Your task to perform on an android device: toggle data saver in the chrome app Image 0: 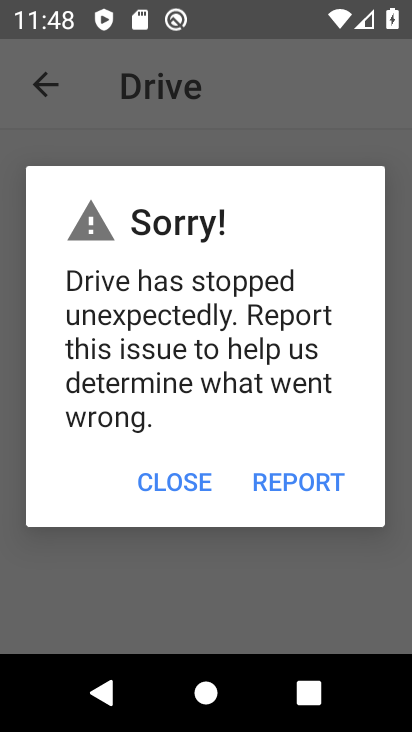
Step 0: press home button
Your task to perform on an android device: toggle data saver in the chrome app Image 1: 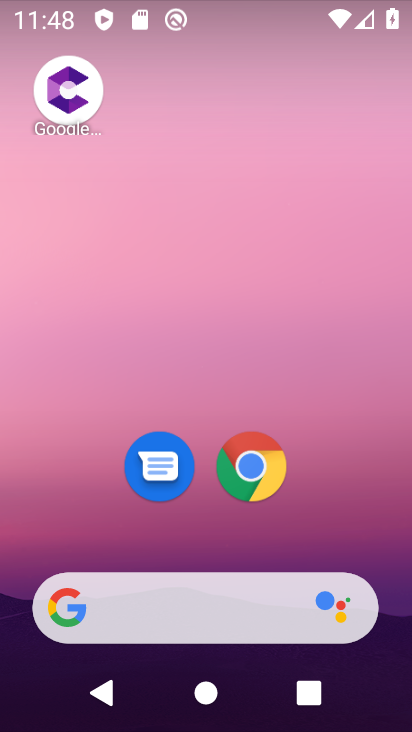
Step 1: click (266, 461)
Your task to perform on an android device: toggle data saver in the chrome app Image 2: 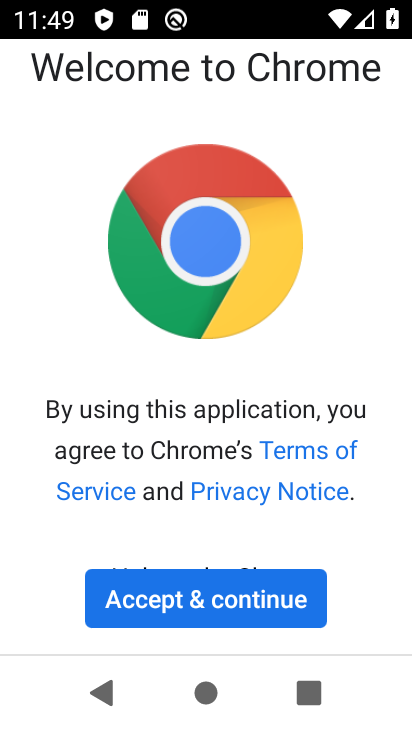
Step 2: click (229, 608)
Your task to perform on an android device: toggle data saver in the chrome app Image 3: 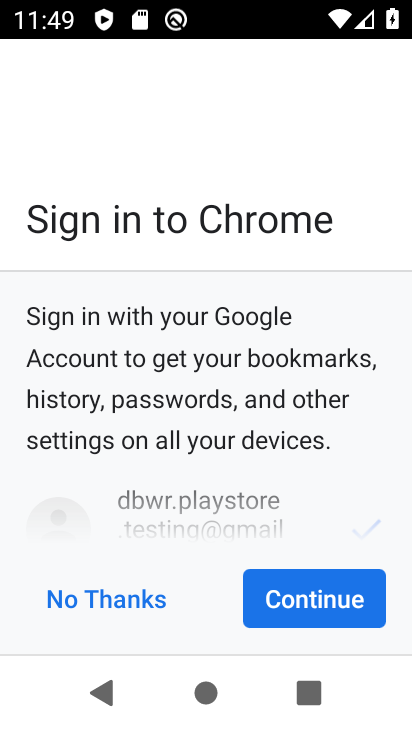
Step 3: click (285, 601)
Your task to perform on an android device: toggle data saver in the chrome app Image 4: 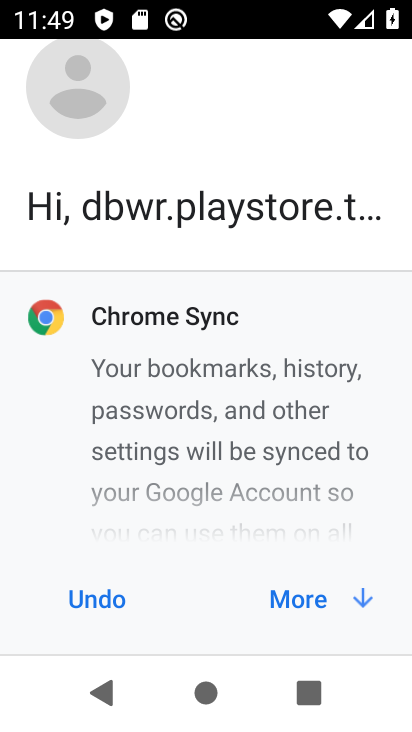
Step 4: click (285, 601)
Your task to perform on an android device: toggle data saver in the chrome app Image 5: 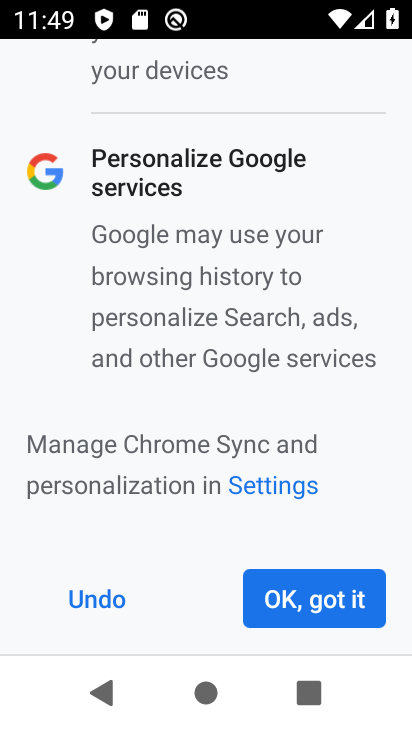
Step 5: click (285, 601)
Your task to perform on an android device: toggle data saver in the chrome app Image 6: 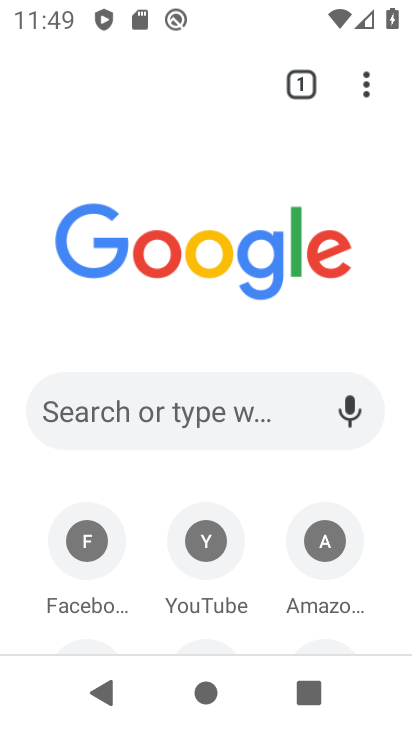
Step 6: click (368, 86)
Your task to perform on an android device: toggle data saver in the chrome app Image 7: 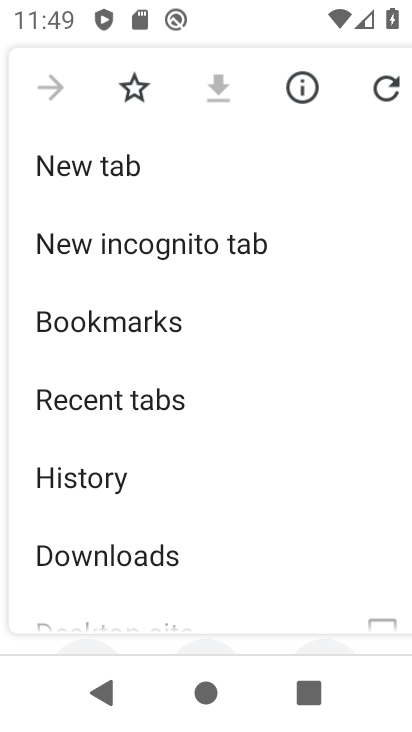
Step 7: drag from (161, 575) to (222, 60)
Your task to perform on an android device: toggle data saver in the chrome app Image 8: 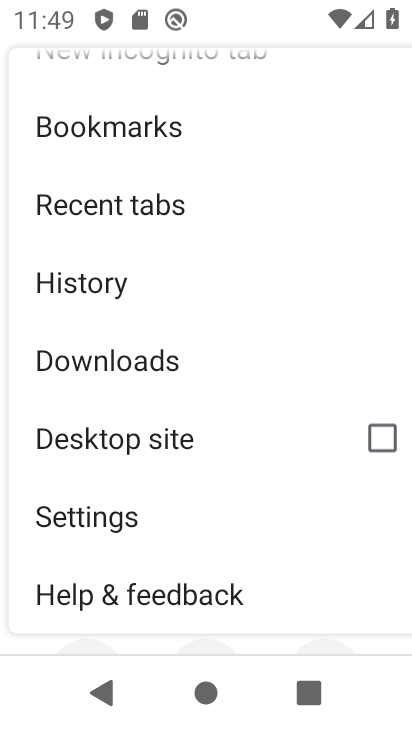
Step 8: click (97, 509)
Your task to perform on an android device: toggle data saver in the chrome app Image 9: 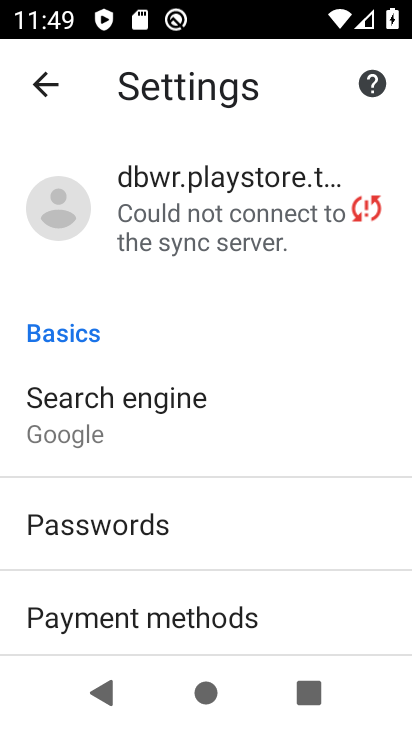
Step 9: drag from (182, 615) to (286, 16)
Your task to perform on an android device: toggle data saver in the chrome app Image 10: 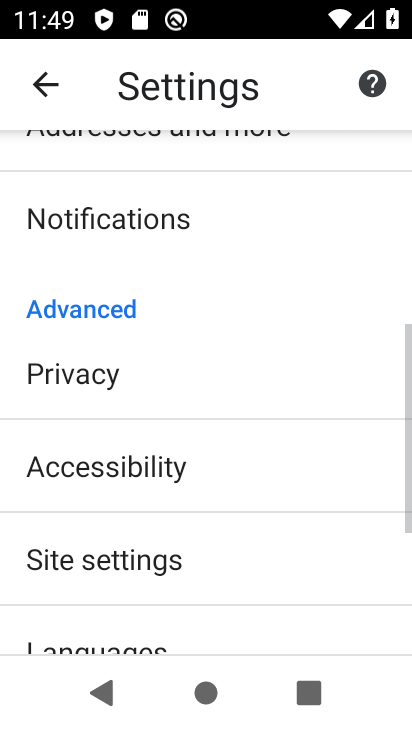
Step 10: drag from (129, 577) to (200, 244)
Your task to perform on an android device: toggle data saver in the chrome app Image 11: 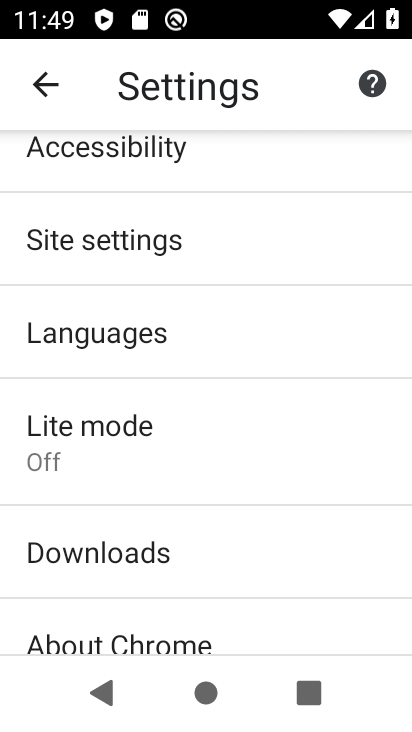
Step 11: click (105, 454)
Your task to perform on an android device: toggle data saver in the chrome app Image 12: 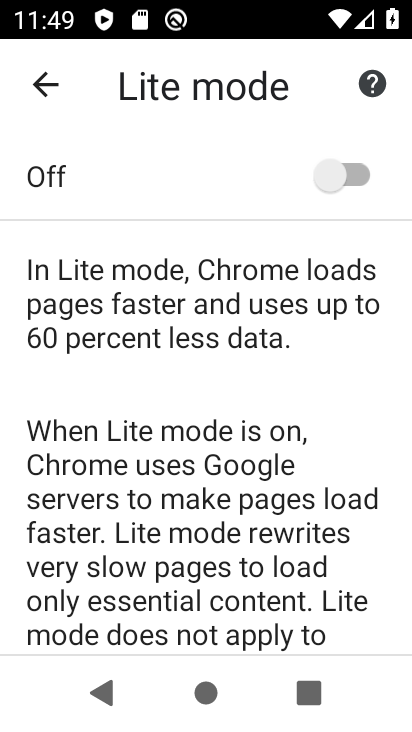
Step 12: click (359, 173)
Your task to perform on an android device: toggle data saver in the chrome app Image 13: 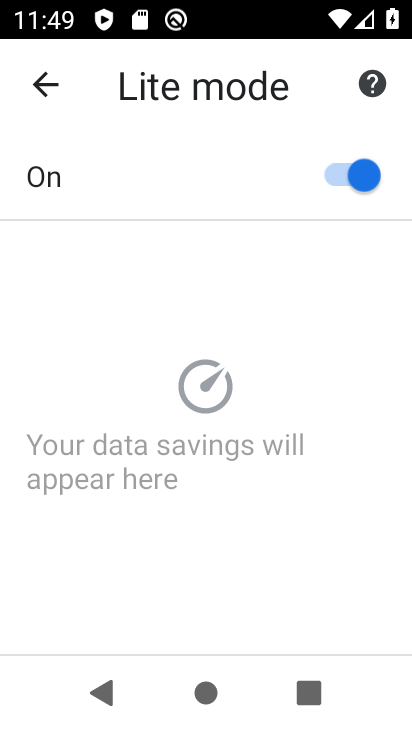
Step 13: task complete